Your task to perform on an android device: Search for Italian restaurants on Maps Image 0: 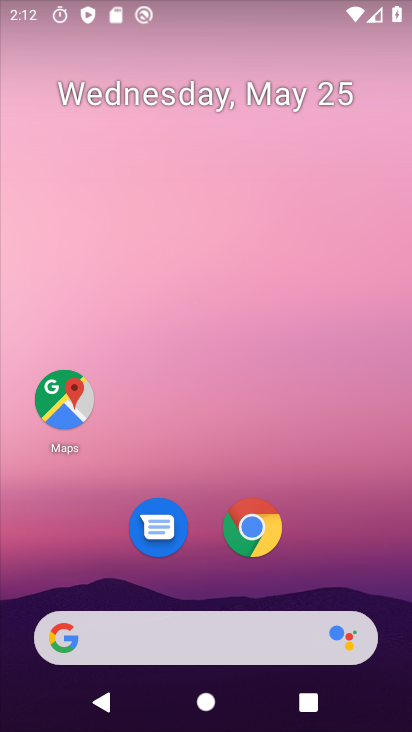
Step 0: drag from (222, 519) to (263, 35)
Your task to perform on an android device: Search for Italian restaurants on Maps Image 1: 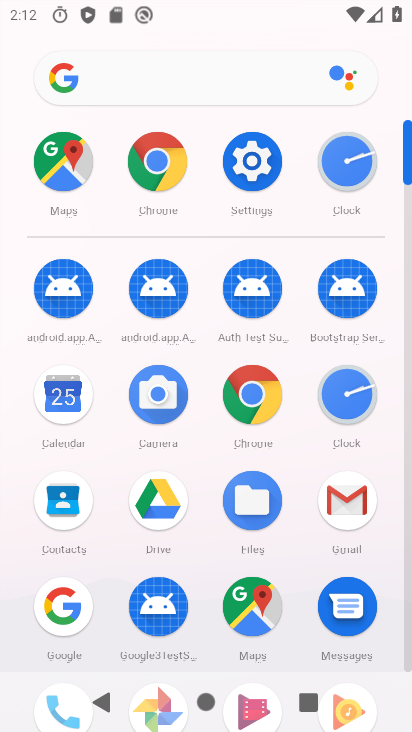
Step 1: click (256, 586)
Your task to perform on an android device: Search for Italian restaurants on Maps Image 2: 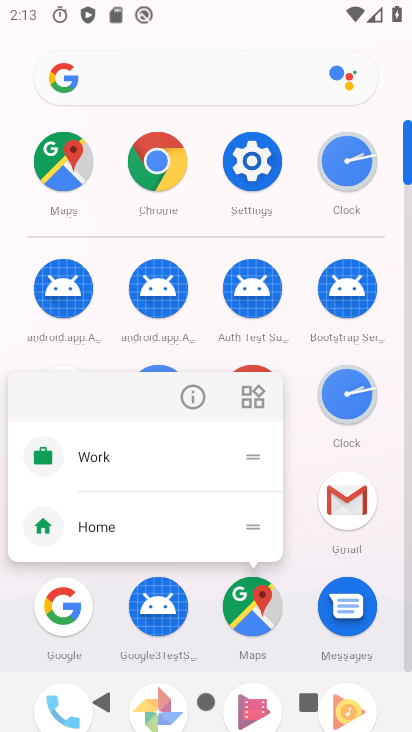
Step 2: click (173, 389)
Your task to perform on an android device: Search for Italian restaurants on Maps Image 3: 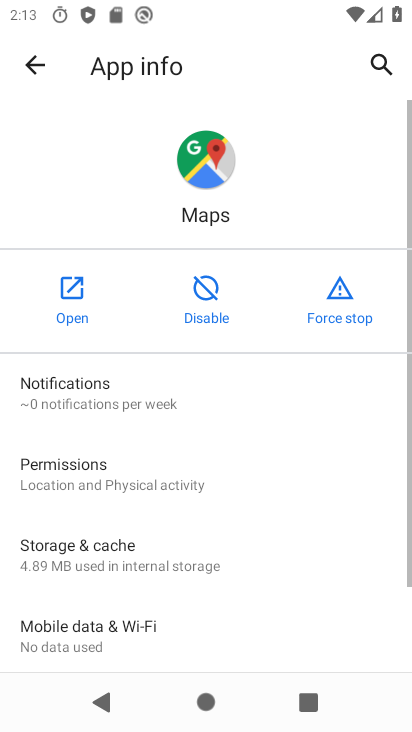
Step 3: click (69, 295)
Your task to perform on an android device: Search for Italian restaurants on Maps Image 4: 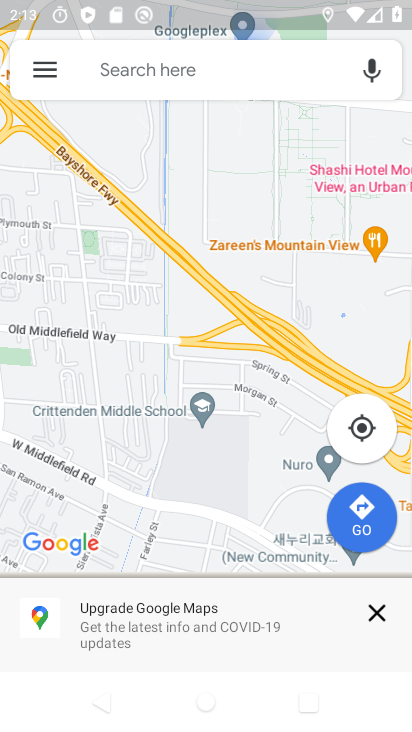
Step 4: click (150, 71)
Your task to perform on an android device: Search for Italian restaurants on Maps Image 5: 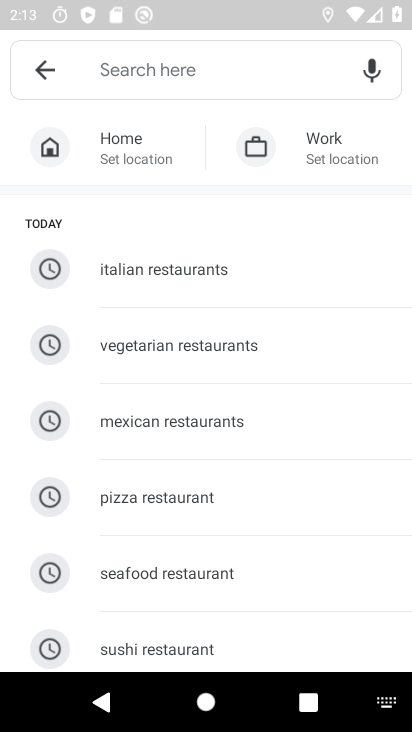
Step 5: click (152, 277)
Your task to perform on an android device: Search for Italian restaurants on Maps Image 6: 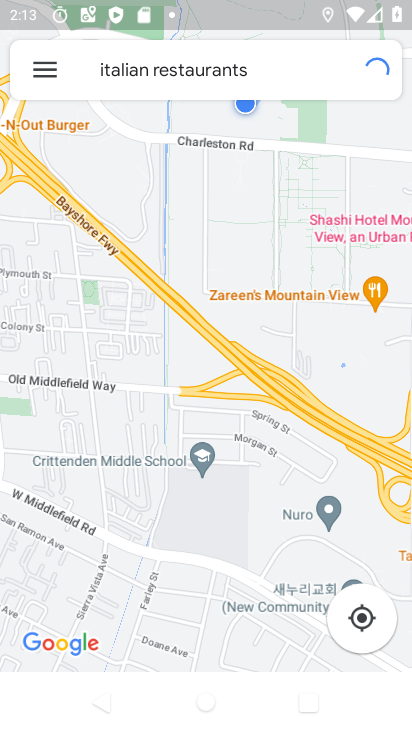
Step 6: task complete